Your task to perform on an android device: Open Amazon Image 0: 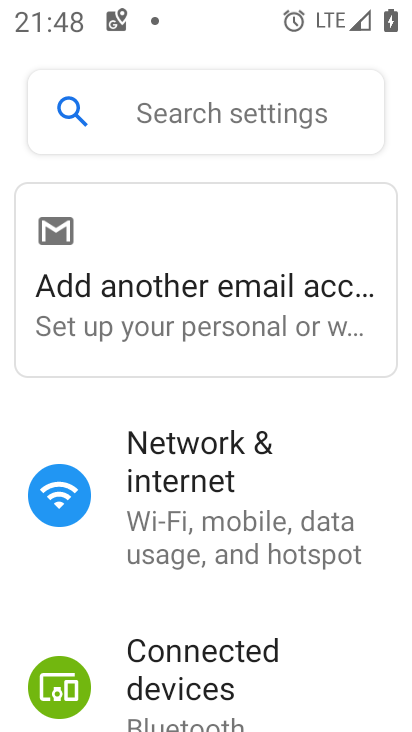
Step 0: press home button
Your task to perform on an android device: Open Amazon Image 1: 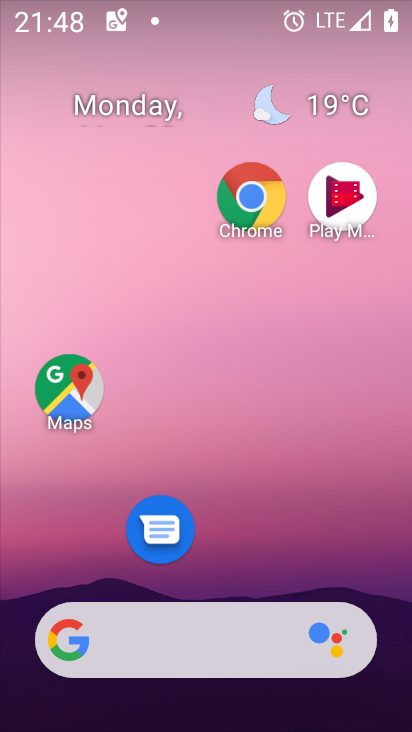
Step 1: click (251, 202)
Your task to perform on an android device: Open Amazon Image 2: 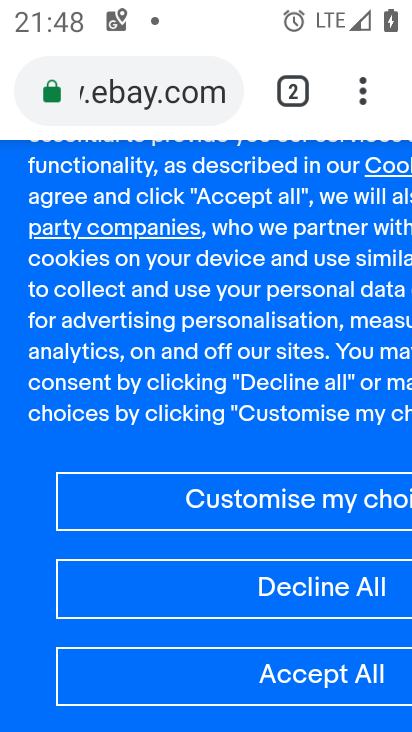
Step 2: click (292, 92)
Your task to perform on an android device: Open Amazon Image 3: 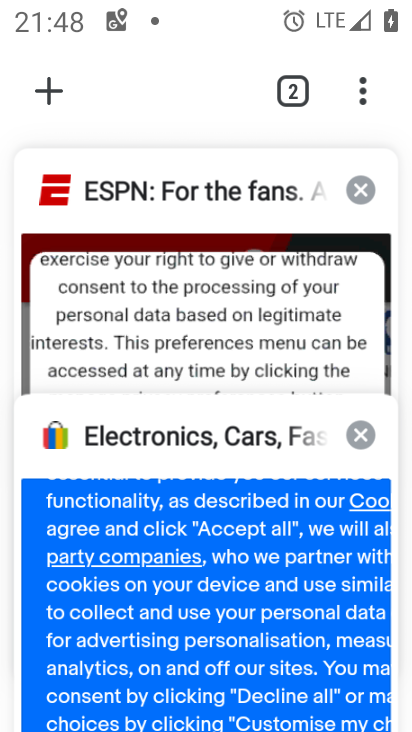
Step 3: click (351, 197)
Your task to perform on an android device: Open Amazon Image 4: 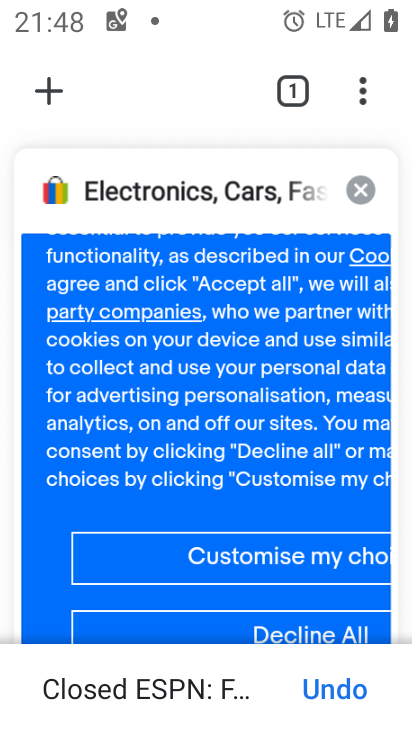
Step 4: click (355, 198)
Your task to perform on an android device: Open Amazon Image 5: 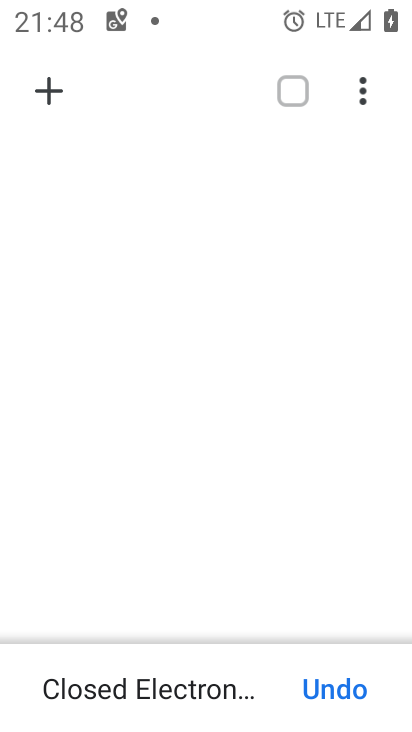
Step 5: click (46, 95)
Your task to perform on an android device: Open Amazon Image 6: 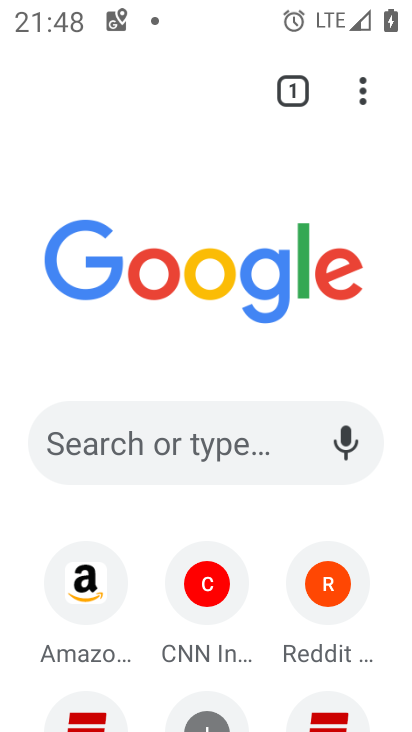
Step 6: click (79, 611)
Your task to perform on an android device: Open Amazon Image 7: 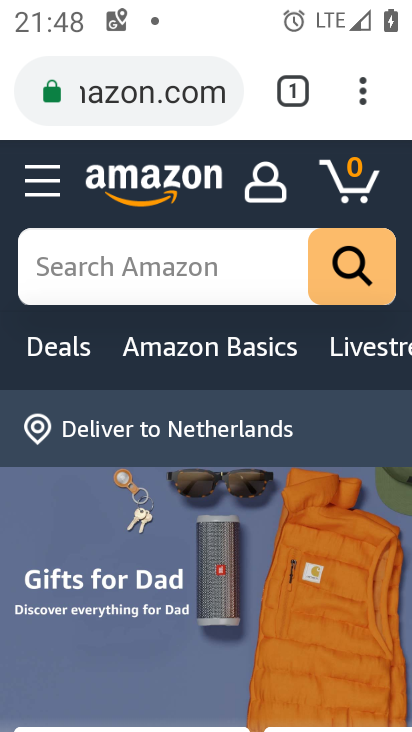
Step 7: task complete